Your task to perform on an android device: turn on showing notifications on the lock screen Image 0: 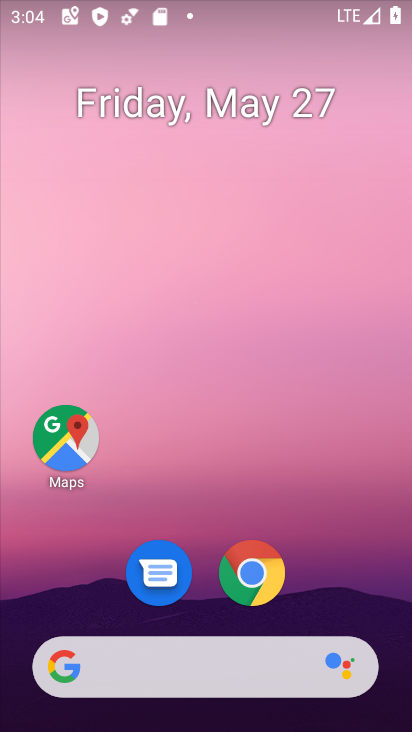
Step 0: drag from (243, 494) to (252, 37)
Your task to perform on an android device: turn on showing notifications on the lock screen Image 1: 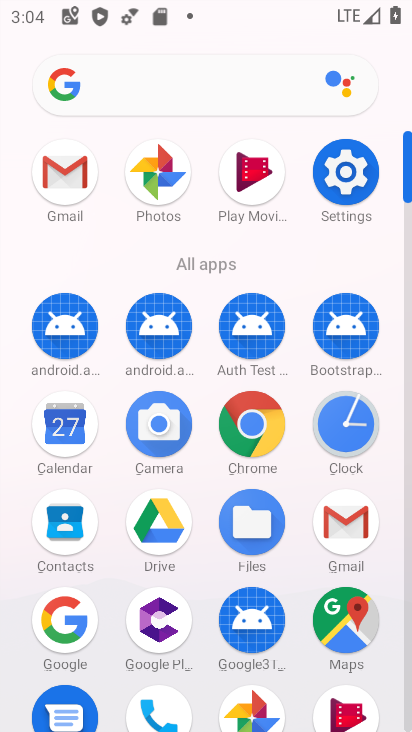
Step 1: click (342, 179)
Your task to perform on an android device: turn on showing notifications on the lock screen Image 2: 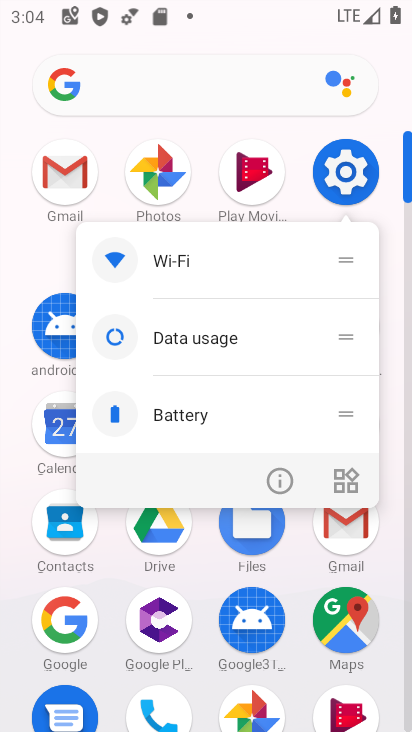
Step 2: click (335, 166)
Your task to perform on an android device: turn on showing notifications on the lock screen Image 3: 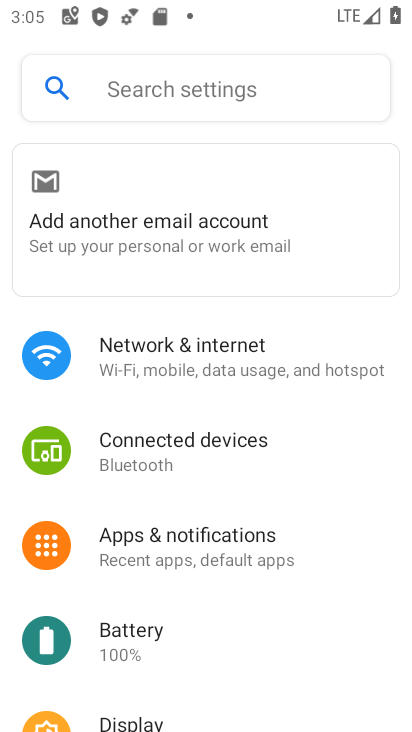
Step 3: click (235, 536)
Your task to perform on an android device: turn on showing notifications on the lock screen Image 4: 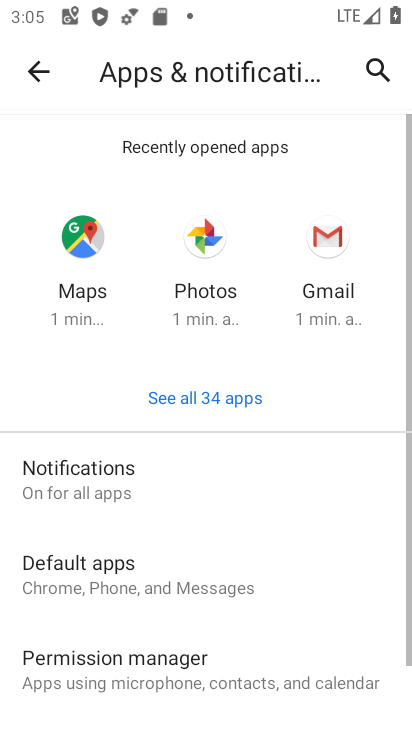
Step 4: drag from (287, 556) to (289, 196)
Your task to perform on an android device: turn on showing notifications on the lock screen Image 5: 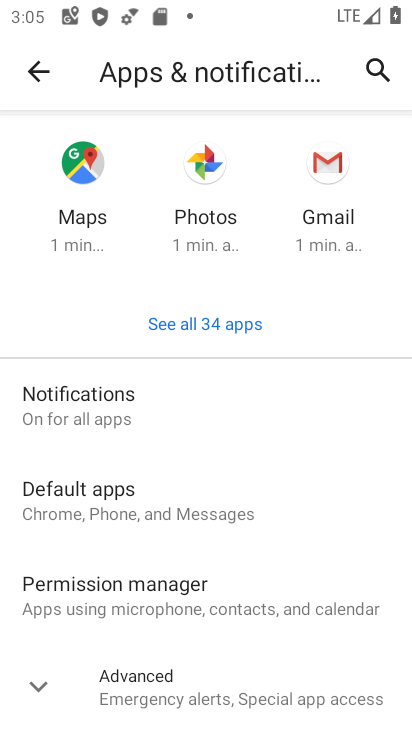
Step 5: click (133, 407)
Your task to perform on an android device: turn on showing notifications on the lock screen Image 6: 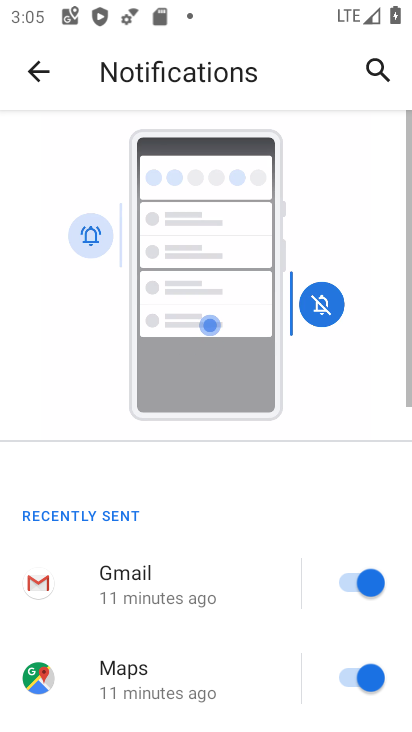
Step 6: task complete